Your task to perform on an android device: open app "Google Docs" (install if not already installed) Image 0: 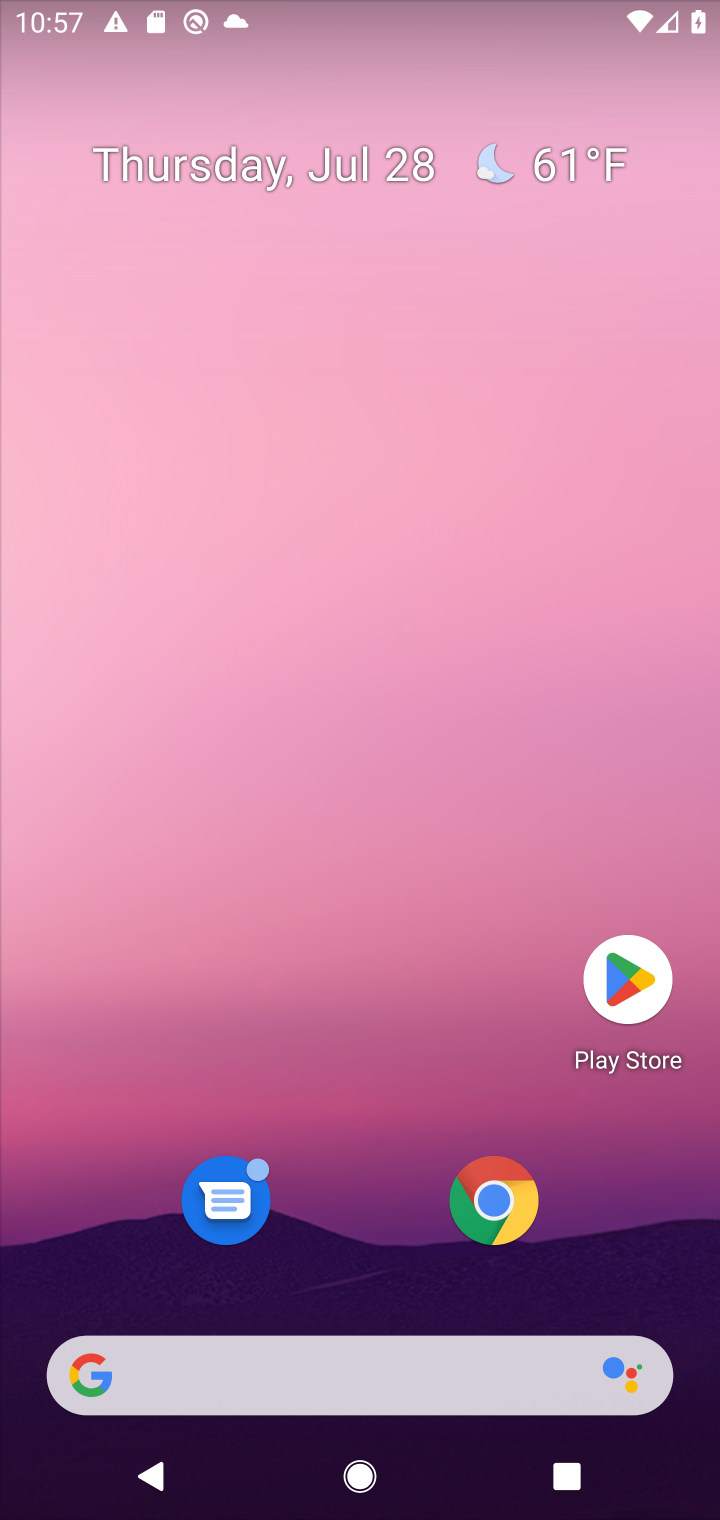
Step 0: press home button
Your task to perform on an android device: open app "Google Docs" (install if not already installed) Image 1: 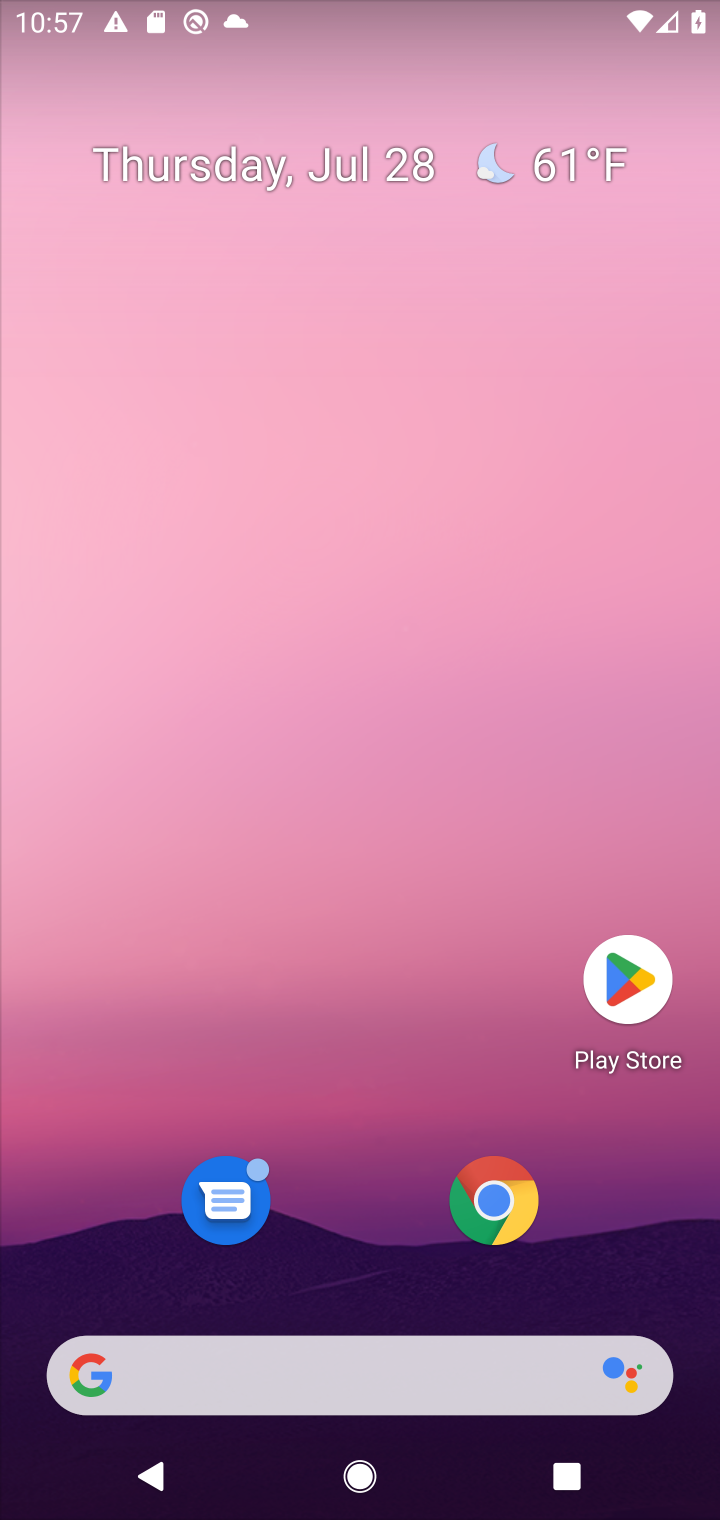
Step 1: click (634, 970)
Your task to perform on an android device: open app "Google Docs" (install if not already installed) Image 2: 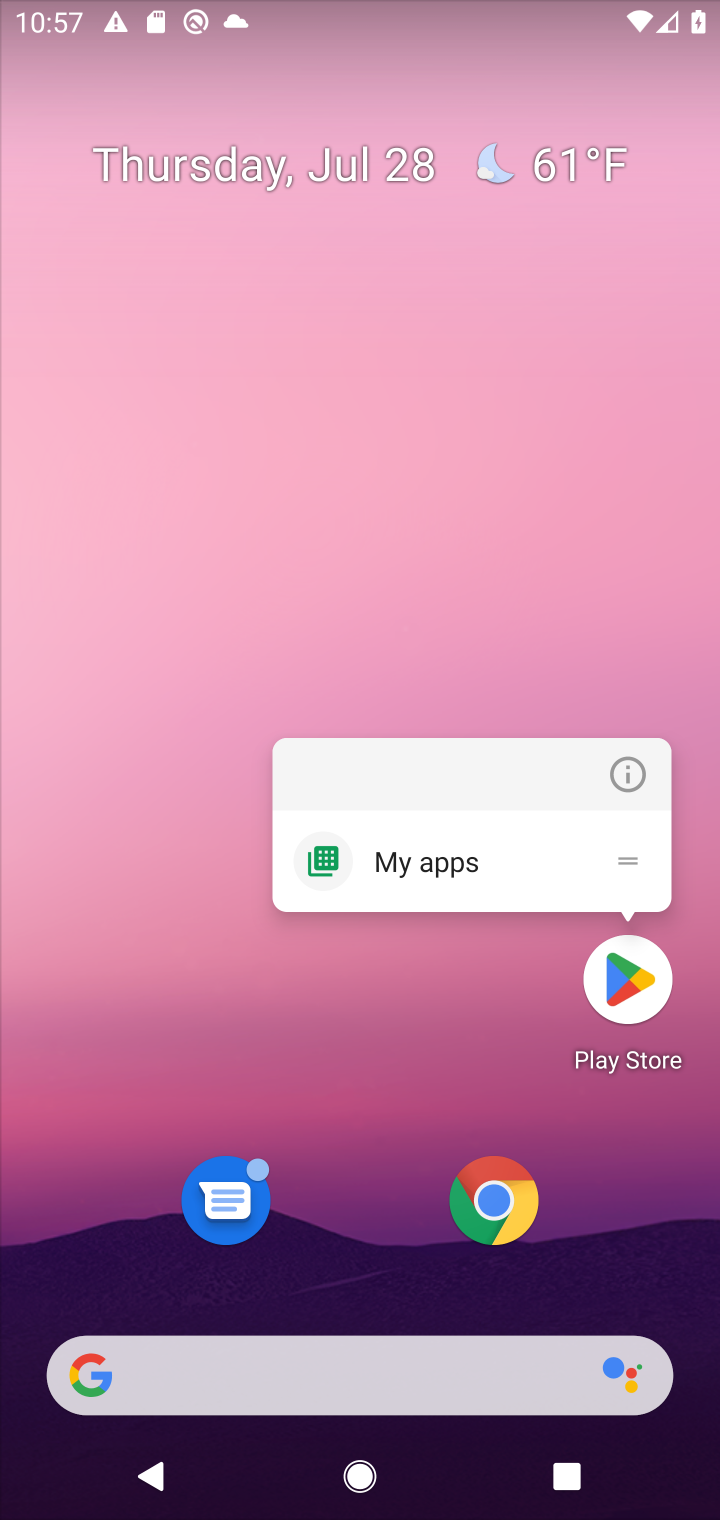
Step 2: click (634, 976)
Your task to perform on an android device: open app "Google Docs" (install if not already installed) Image 3: 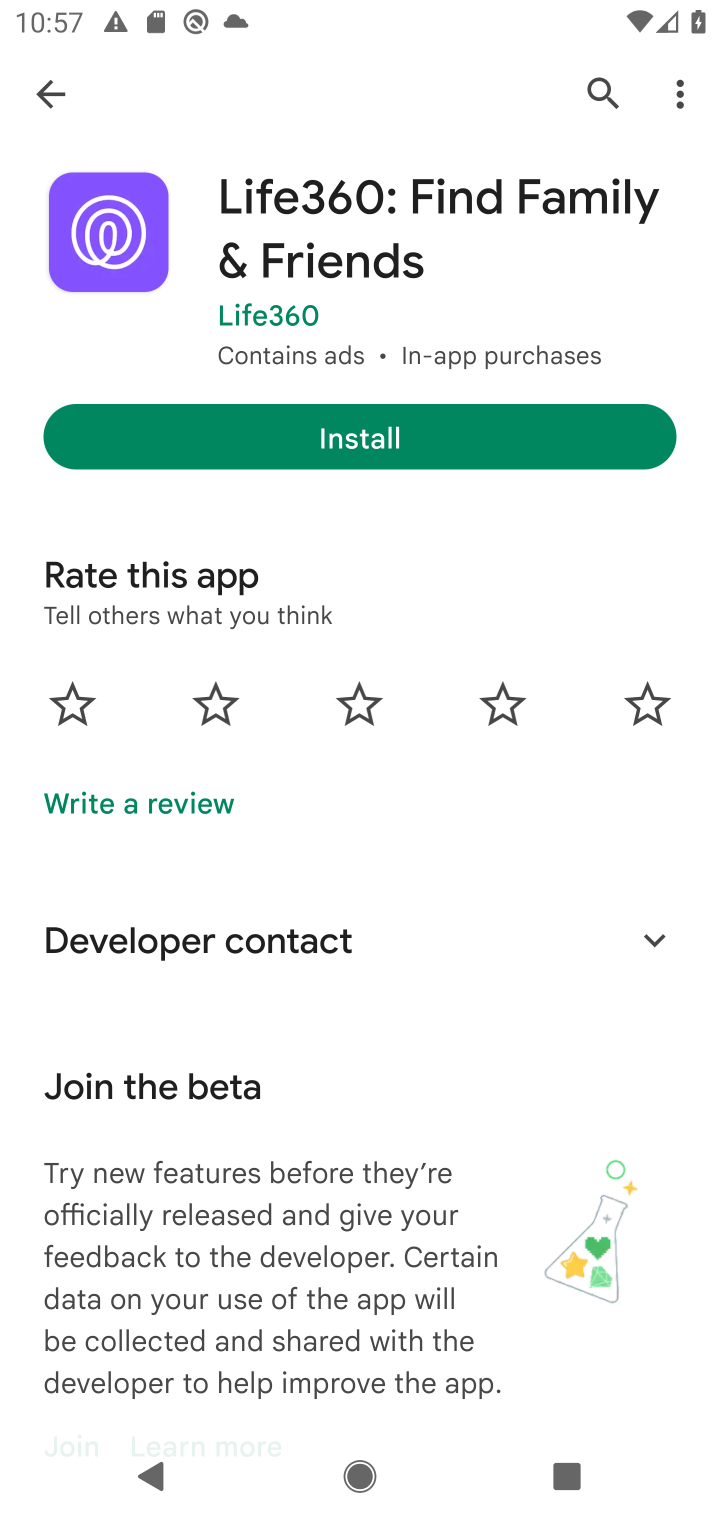
Step 3: click (592, 79)
Your task to perform on an android device: open app "Google Docs" (install if not already installed) Image 4: 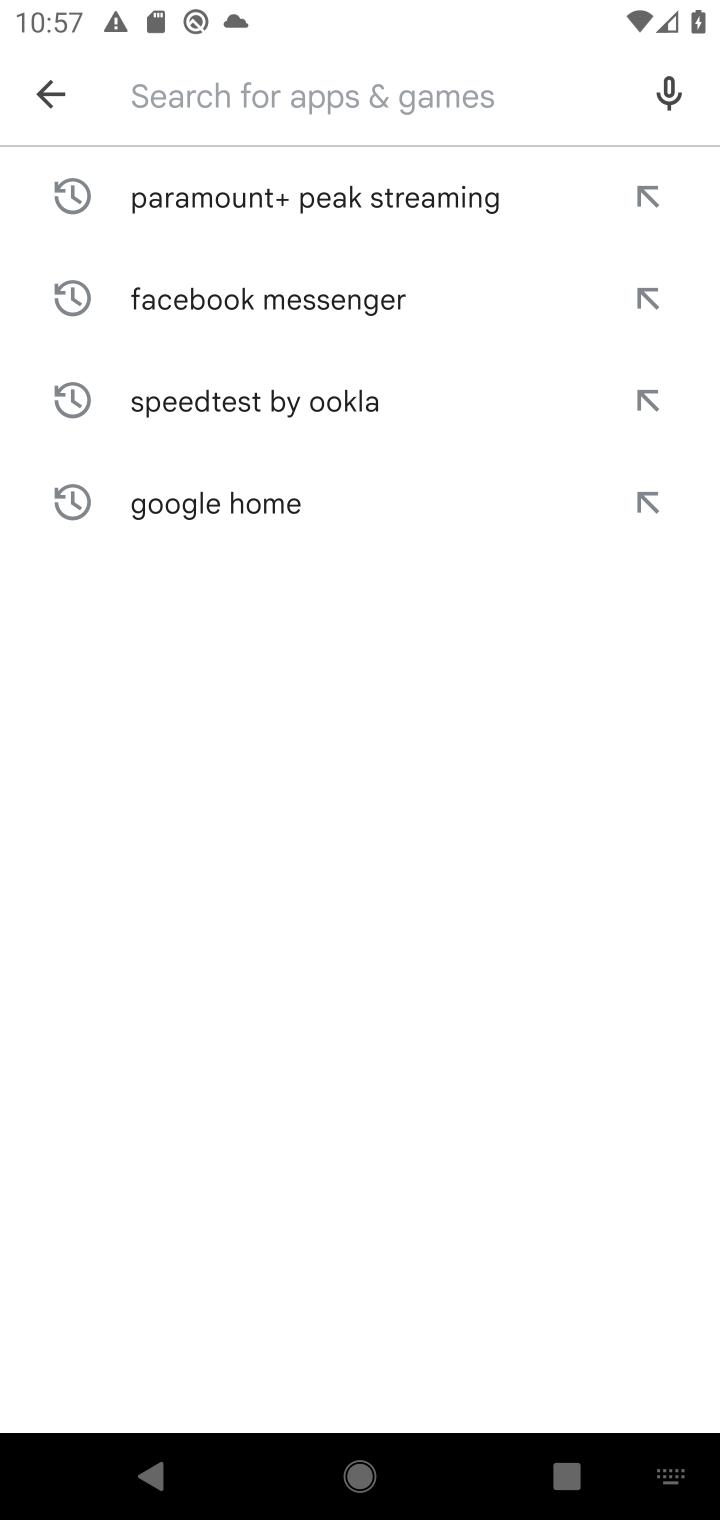
Step 4: type "Google Docs"
Your task to perform on an android device: open app "Google Docs" (install if not already installed) Image 5: 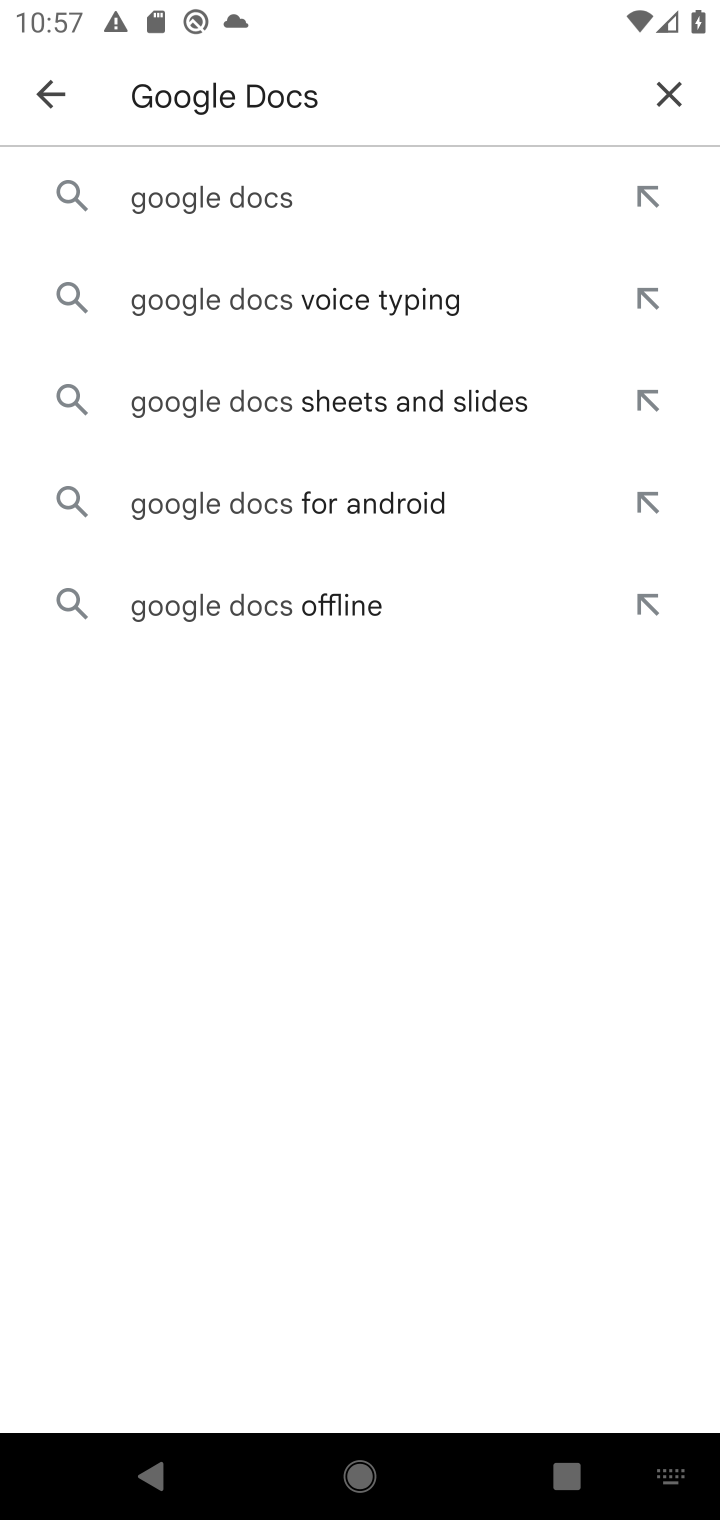
Step 5: click (224, 189)
Your task to perform on an android device: open app "Google Docs" (install if not already installed) Image 6: 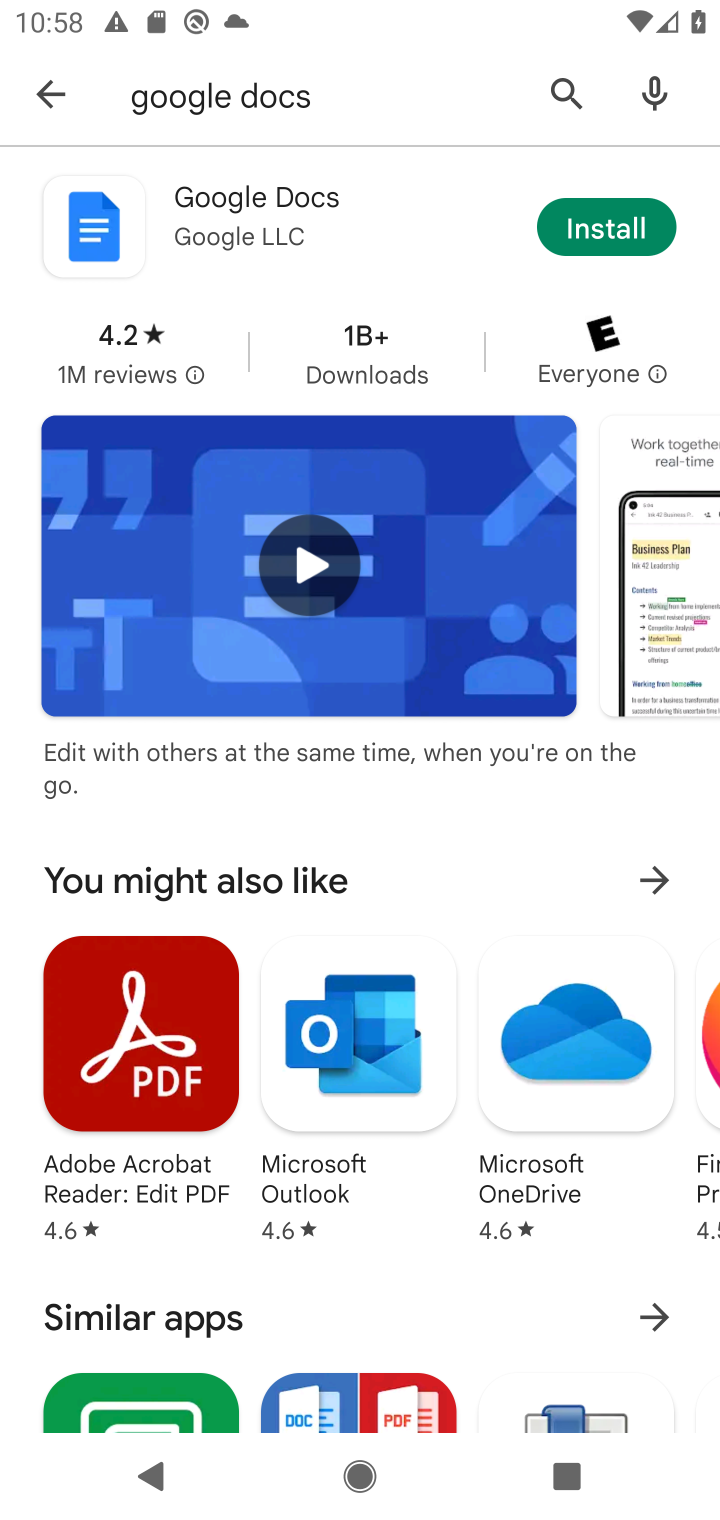
Step 6: task complete